Your task to perform on an android device: set the timer Image 0: 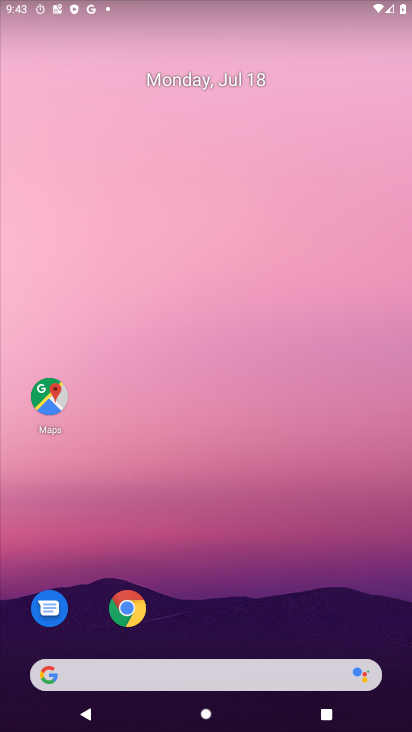
Step 0: drag from (193, 627) to (192, 133)
Your task to perform on an android device: set the timer Image 1: 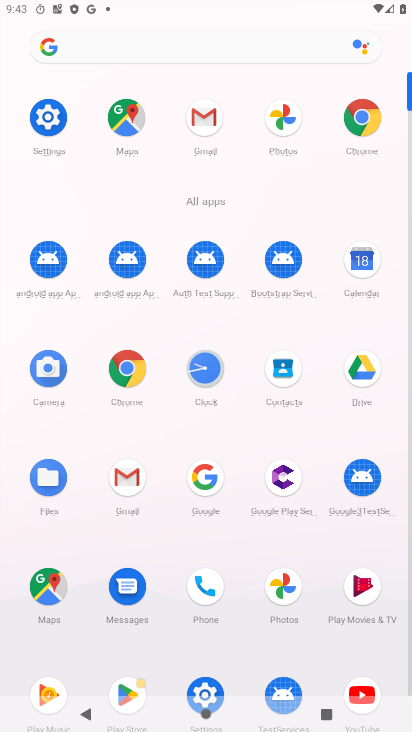
Step 1: click (201, 375)
Your task to perform on an android device: set the timer Image 2: 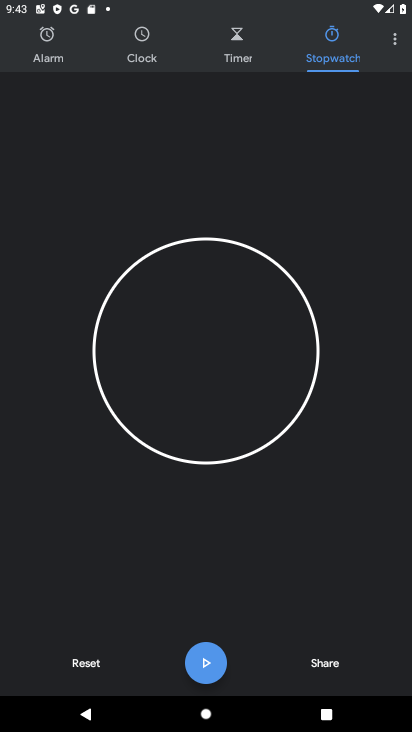
Step 2: click (234, 54)
Your task to perform on an android device: set the timer Image 3: 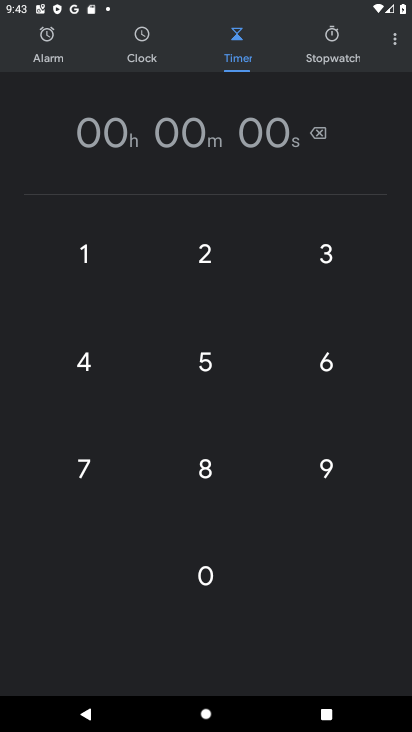
Step 3: click (204, 259)
Your task to perform on an android device: set the timer Image 4: 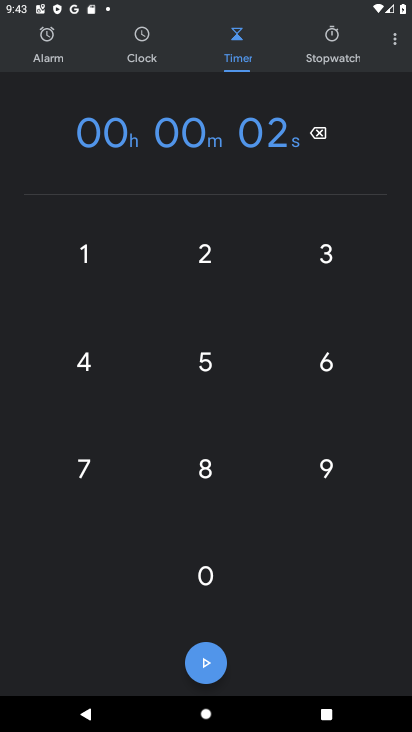
Step 4: click (200, 567)
Your task to perform on an android device: set the timer Image 5: 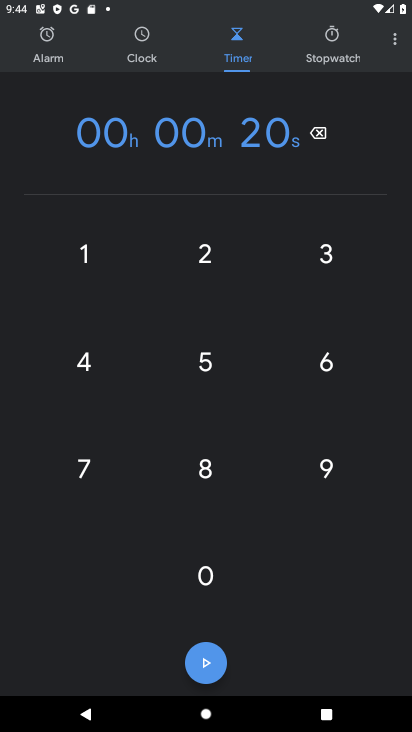
Step 5: click (211, 568)
Your task to perform on an android device: set the timer Image 6: 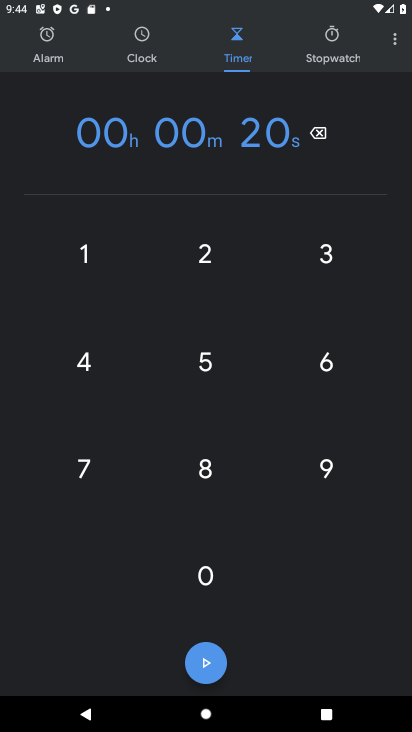
Step 6: click (211, 568)
Your task to perform on an android device: set the timer Image 7: 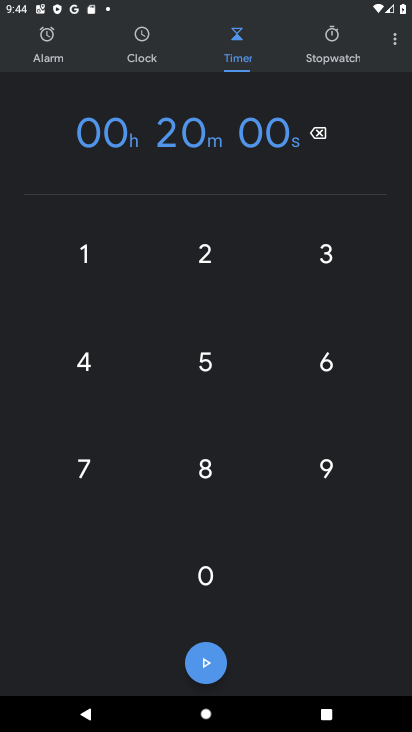
Step 7: click (202, 670)
Your task to perform on an android device: set the timer Image 8: 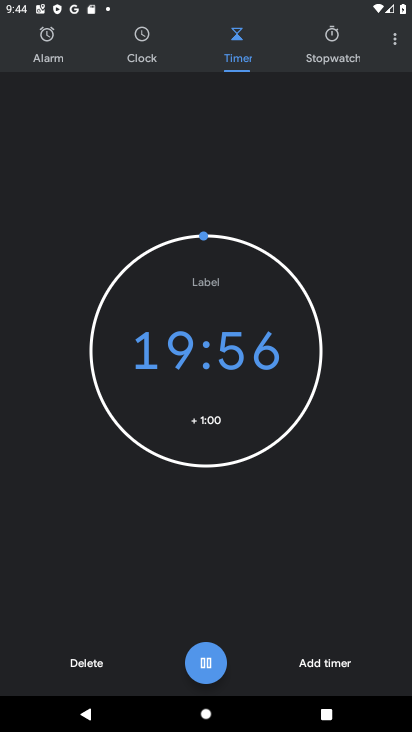
Step 8: click (310, 662)
Your task to perform on an android device: set the timer Image 9: 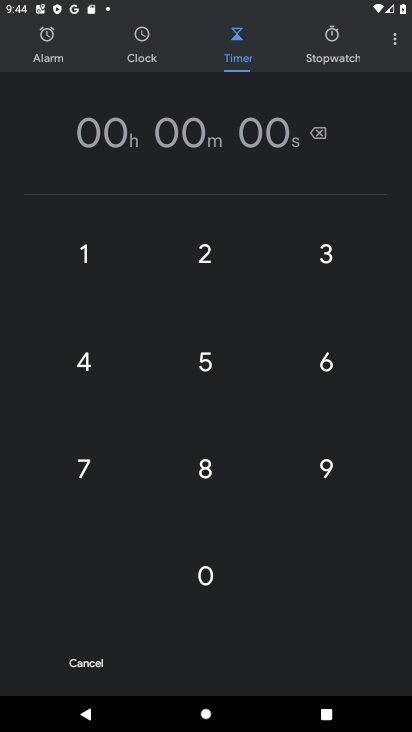
Step 9: task complete